Your task to perform on an android device: What's the weather going to be tomorrow? Image 0: 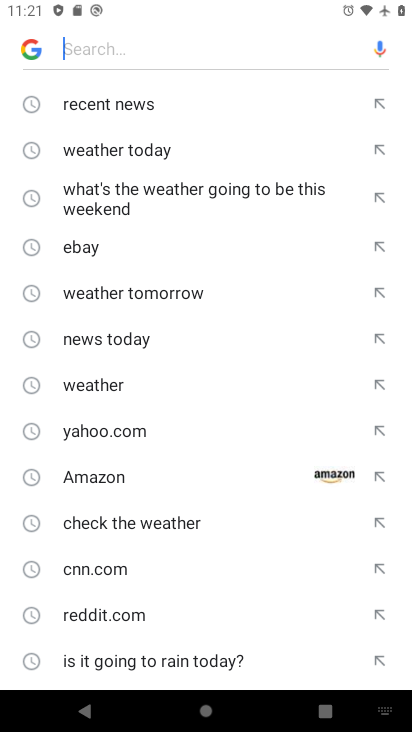
Step 0: press home button
Your task to perform on an android device: What's the weather going to be tomorrow? Image 1: 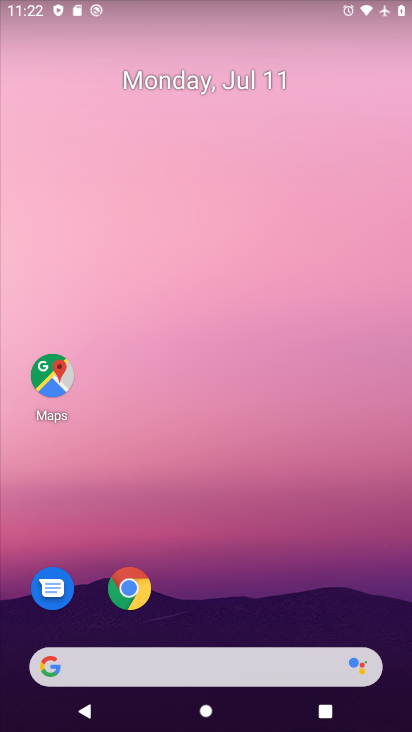
Step 1: click (183, 657)
Your task to perform on an android device: What's the weather going to be tomorrow? Image 2: 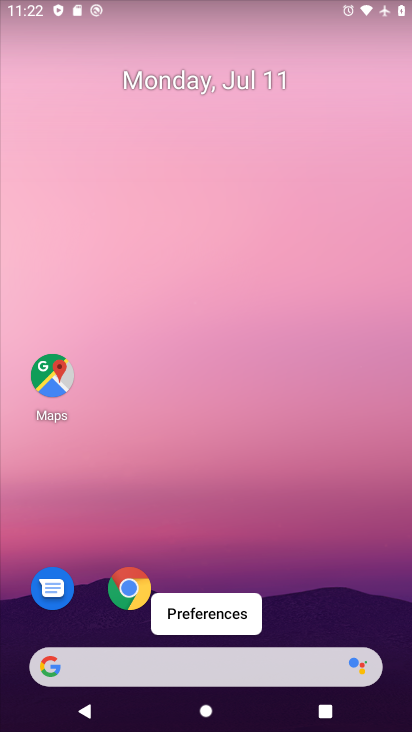
Step 2: click (175, 660)
Your task to perform on an android device: What's the weather going to be tomorrow? Image 3: 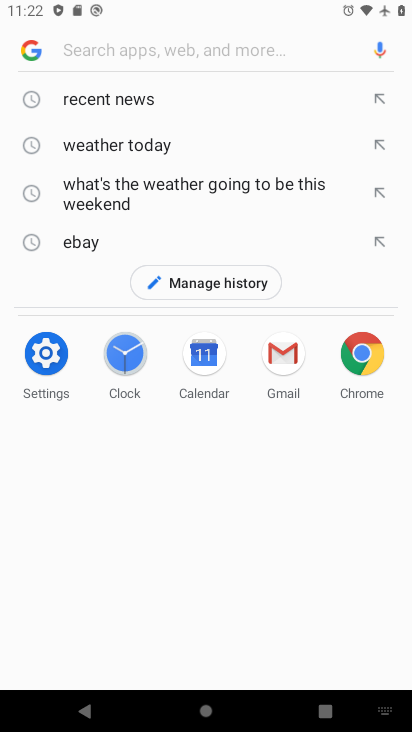
Step 3: type "weather going to be tomorrow"
Your task to perform on an android device: What's the weather going to be tomorrow? Image 4: 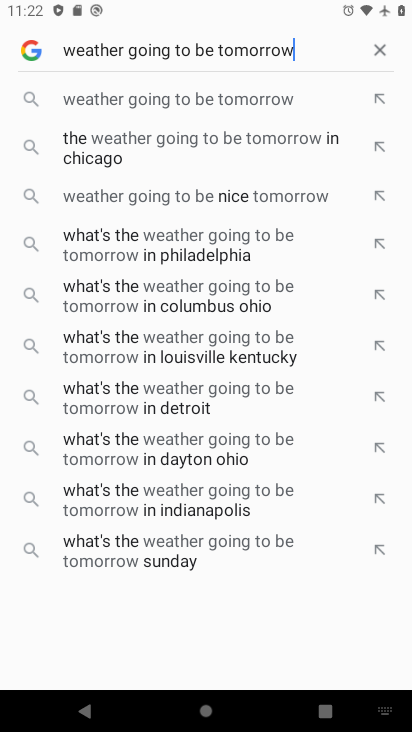
Step 4: click (91, 97)
Your task to perform on an android device: What's the weather going to be tomorrow? Image 5: 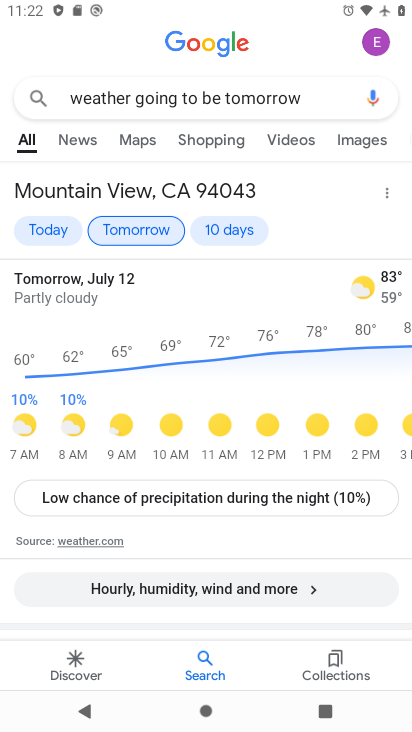
Step 5: task complete